Your task to perform on an android device: Open Google Maps Image 0: 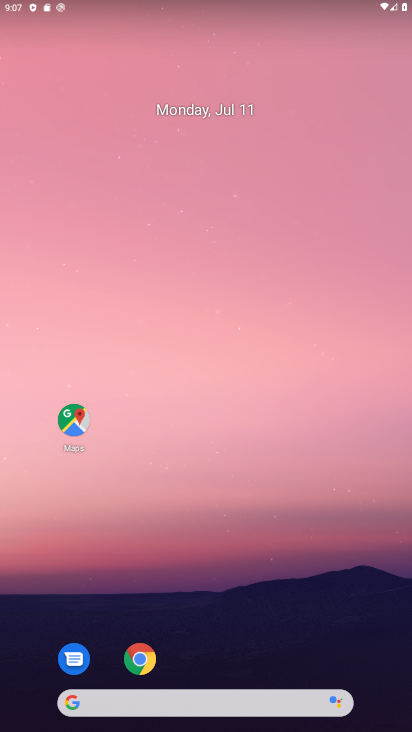
Step 0: drag from (355, 639) to (361, 177)
Your task to perform on an android device: Open Google Maps Image 1: 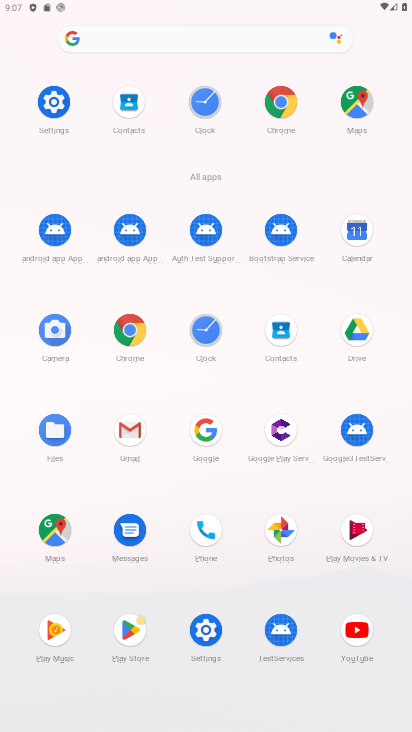
Step 1: click (61, 530)
Your task to perform on an android device: Open Google Maps Image 2: 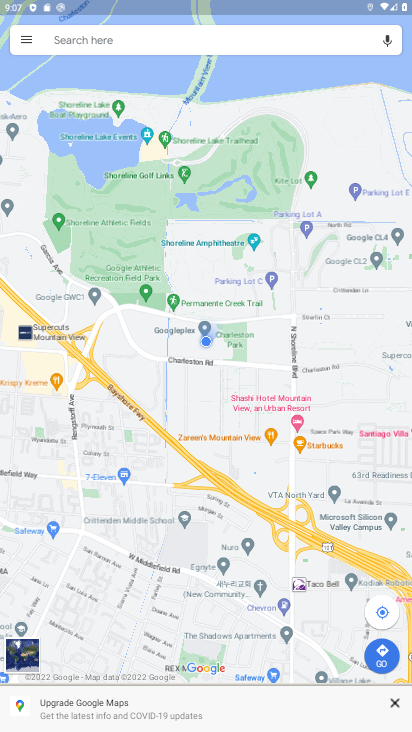
Step 2: task complete